Your task to perform on an android device: set the timer Image 0: 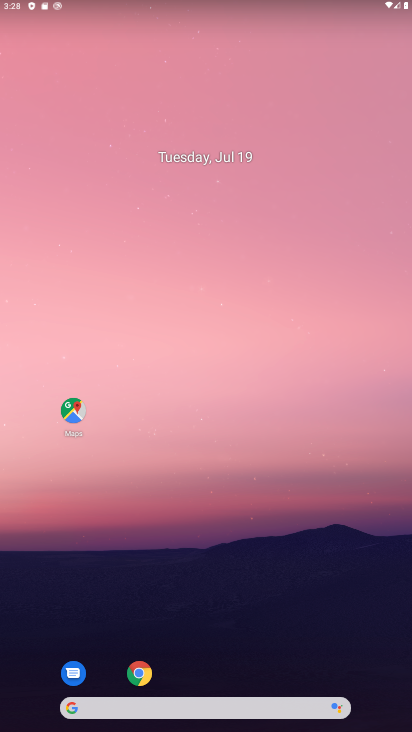
Step 0: drag from (376, 590) to (283, 31)
Your task to perform on an android device: set the timer Image 1: 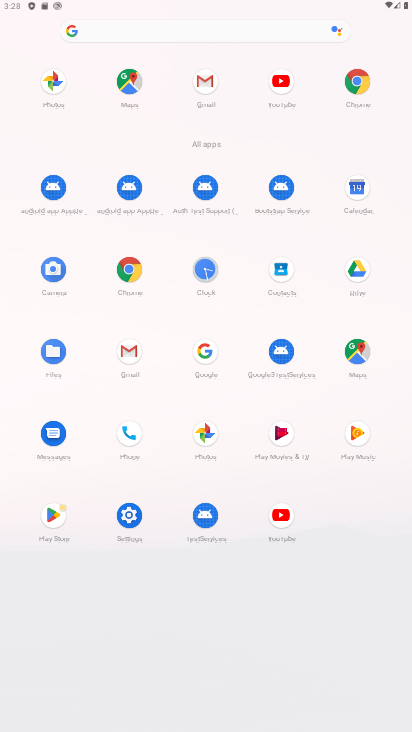
Step 1: click (203, 265)
Your task to perform on an android device: set the timer Image 2: 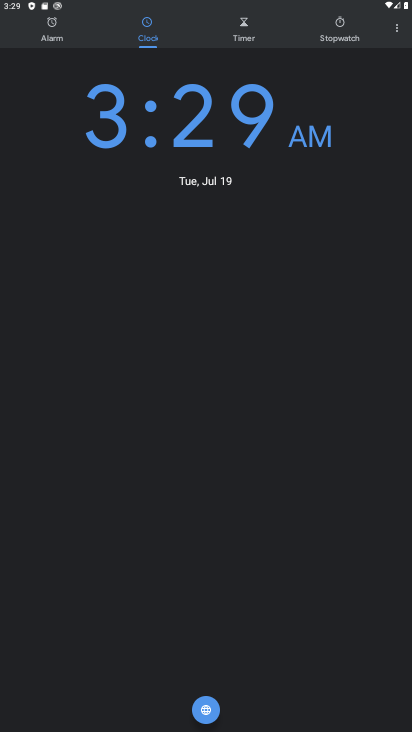
Step 2: click (253, 29)
Your task to perform on an android device: set the timer Image 3: 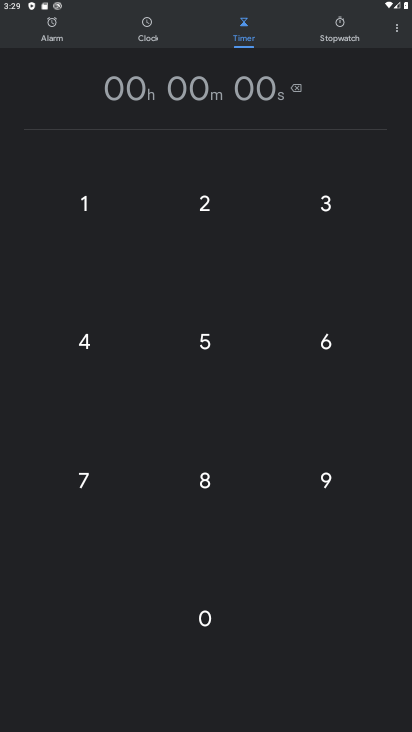
Step 3: click (199, 334)
Your task to perform on an android device: set the timer Image 4: 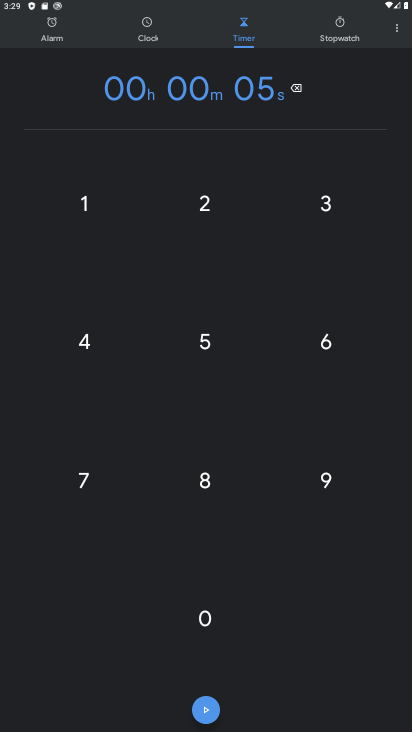
Step 4: task complete